Your task to perform on an android device: What is the capital of Spain? Image 0: 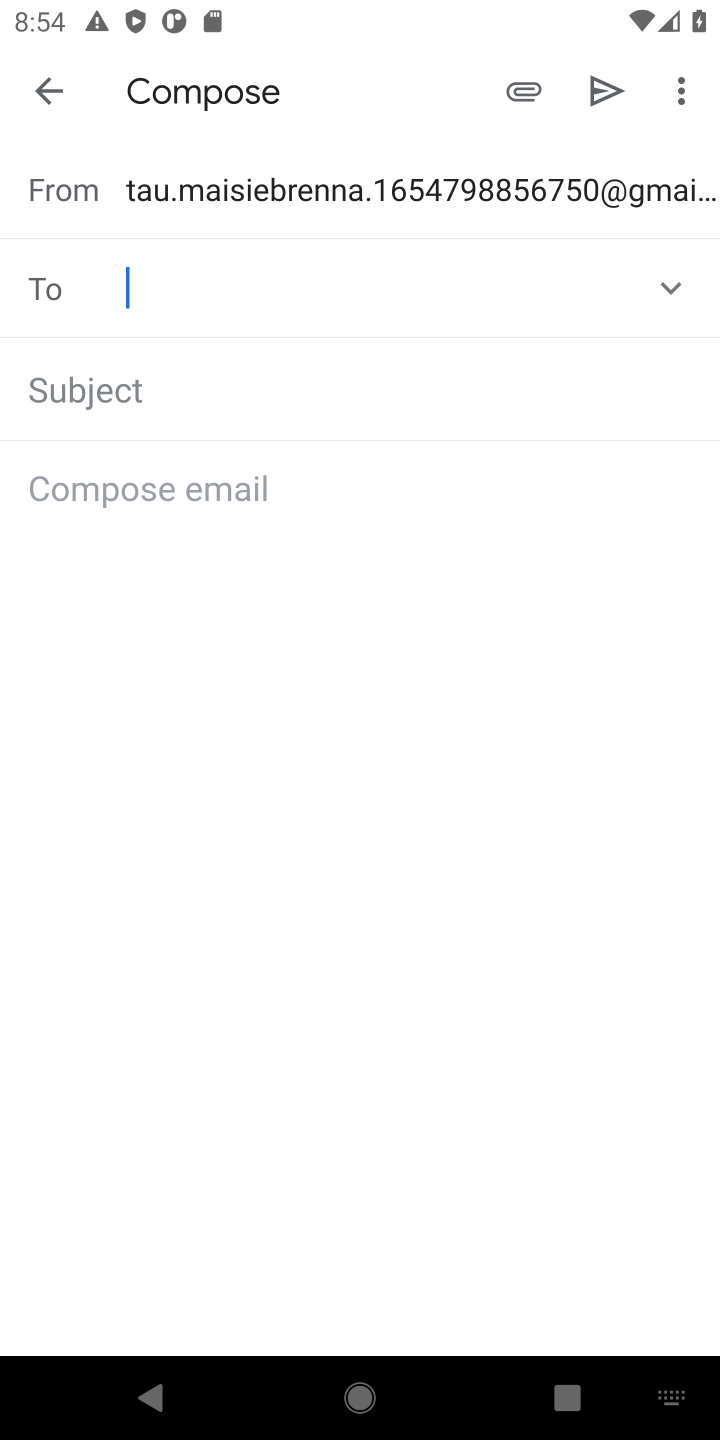
Step 0: press home button
Your task to perform on an android device: What is the capital of Spain? Image 1: 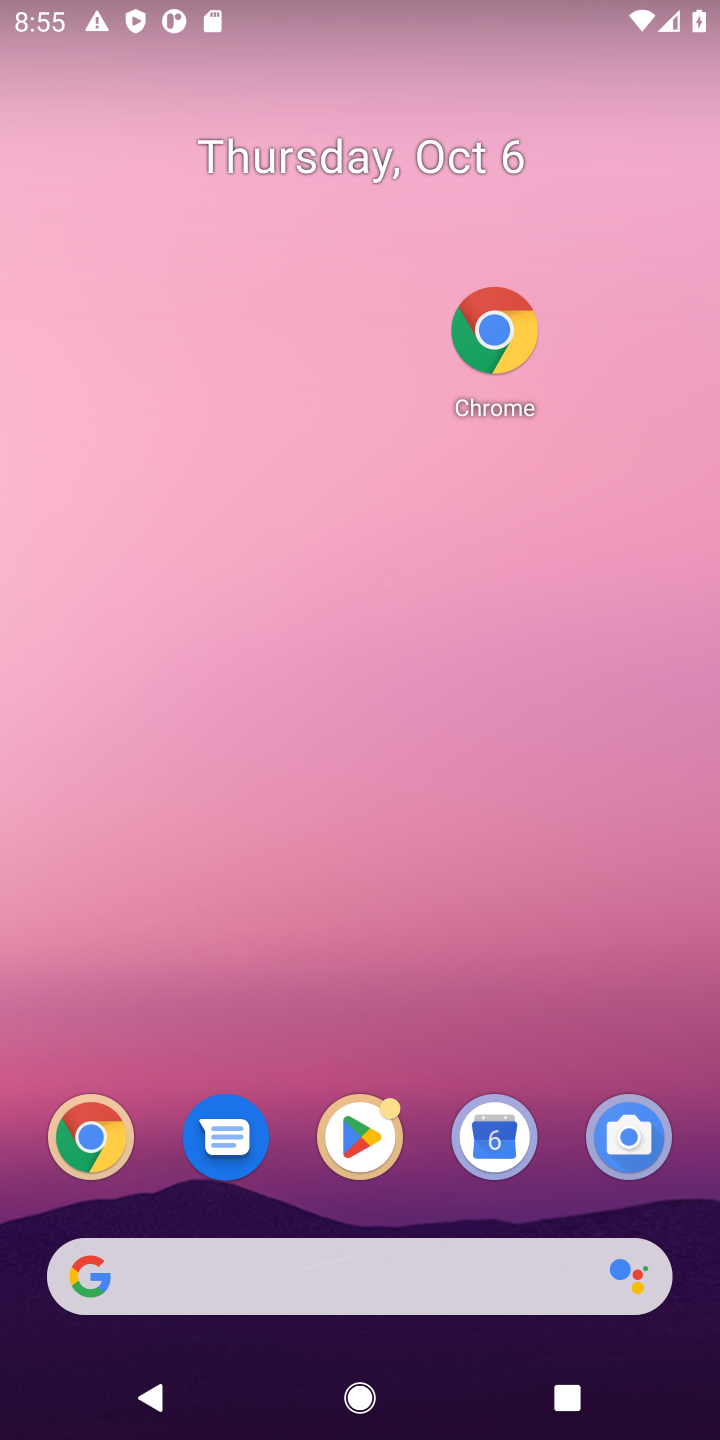
Step 1: click (90, 1138)
Your task to perform on an android device: What is the capital of Spain? Image 2: 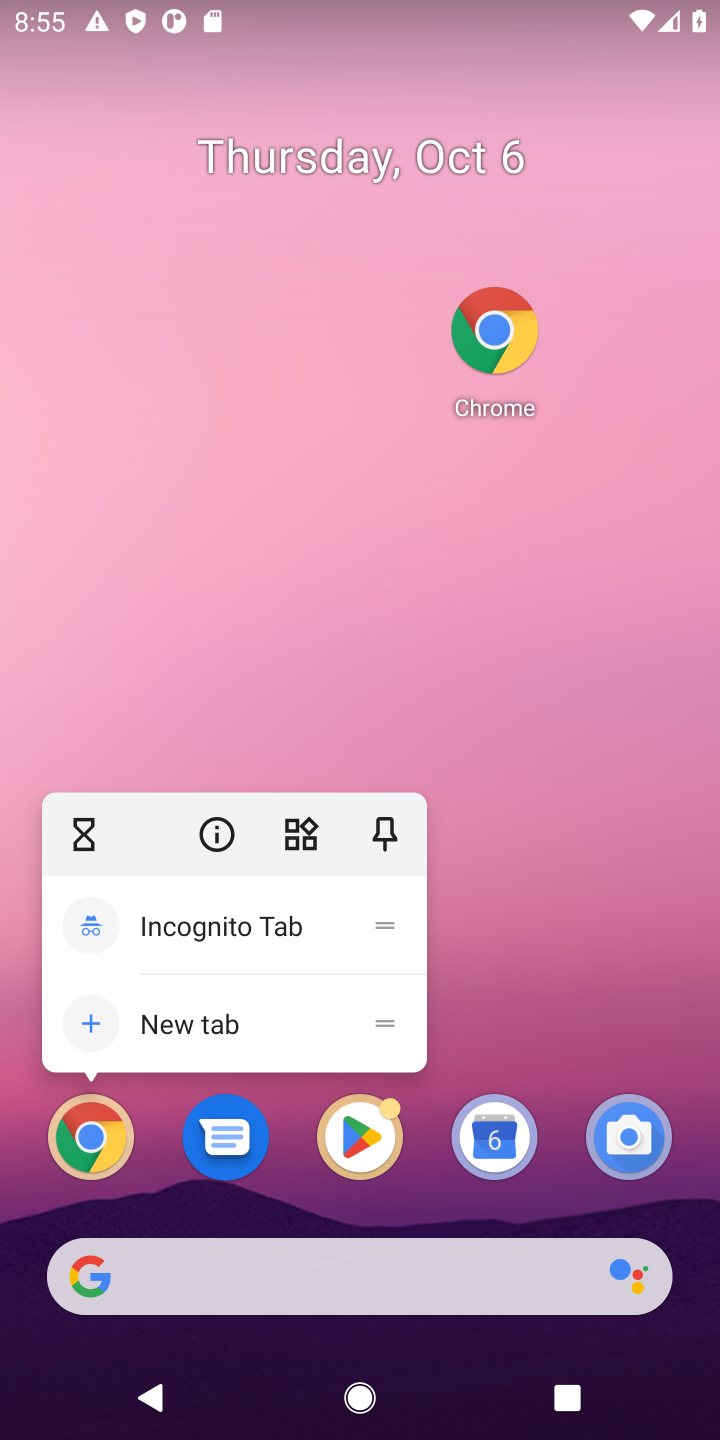
Step 2: click (89, 1138)
Your task to perform on an android device: What is the capital of Spain? Image 3: 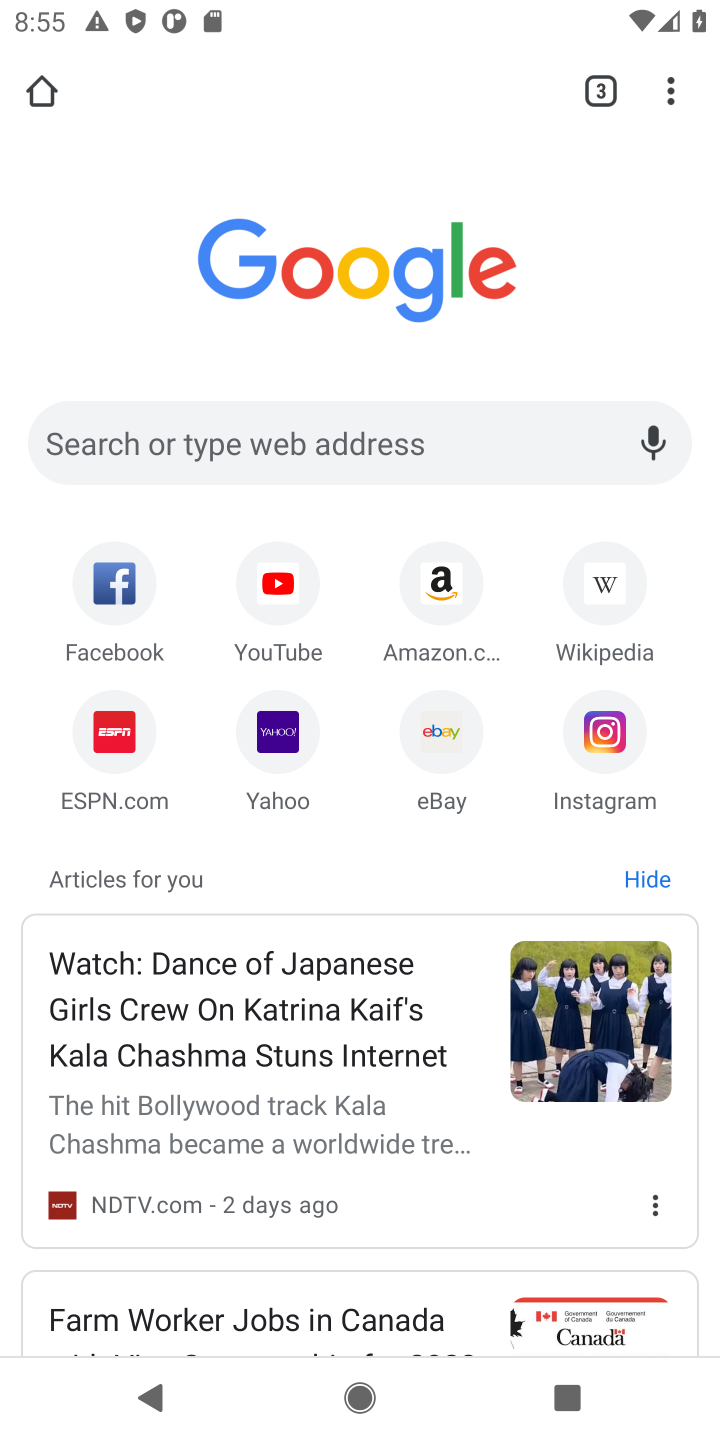
Step 3: click (258, 449)
Your task to perform on an android device: What is the capital of Spain? Image 4: 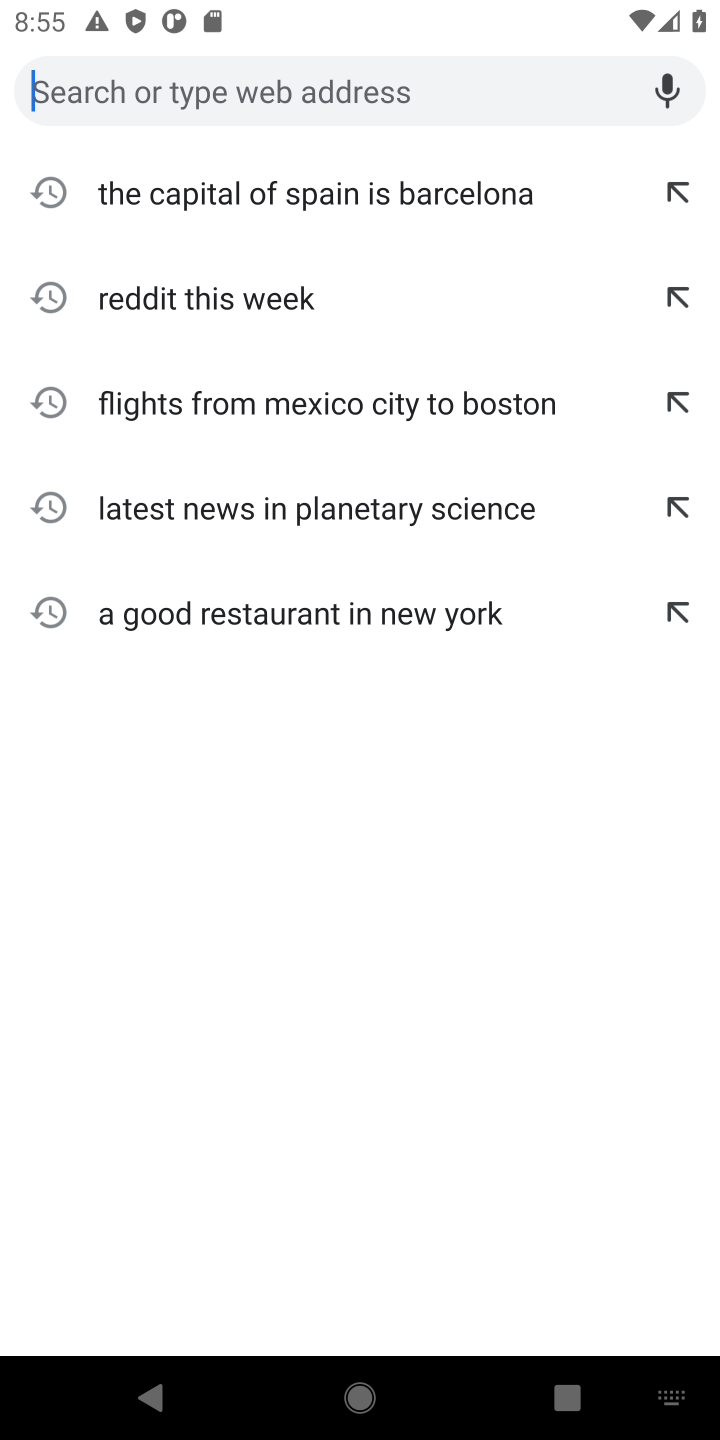
Step 4: type "capital spain"
Your task to perform on an android device: What is the capital of Spain? Image 5: 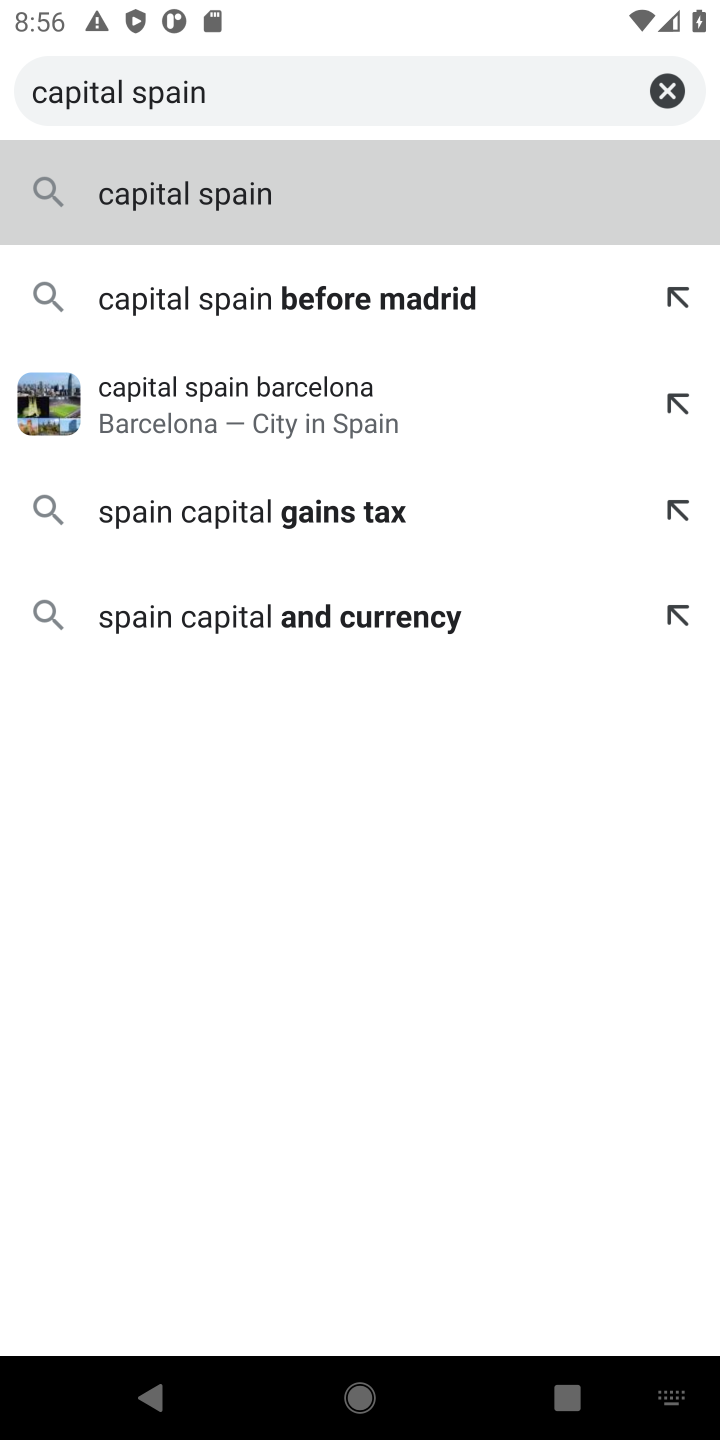
Step 5: click (132, 96)
Your task to perform on an android device: What is the capital of Spain? Image 6: 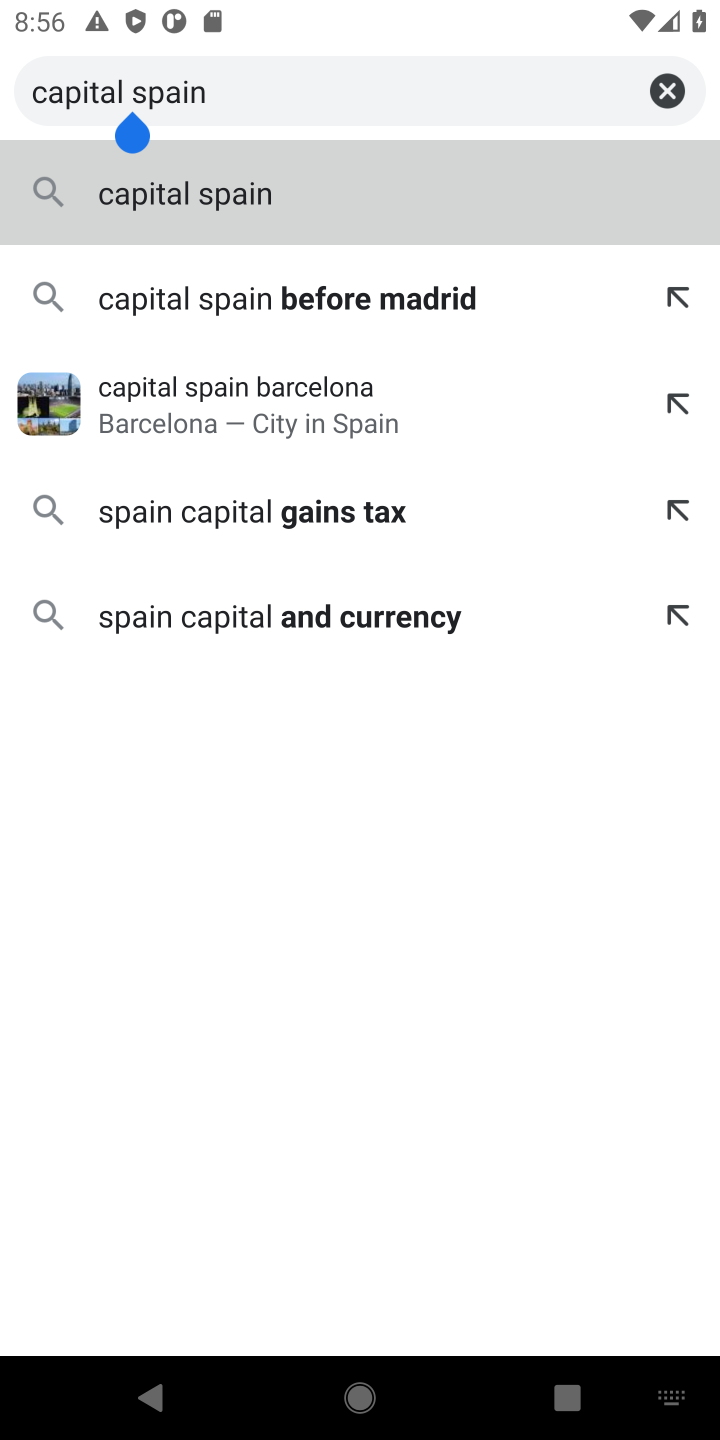
Step 6: type "of "
Your task to perform on an android device: What is the capital of Spain? Image 7: 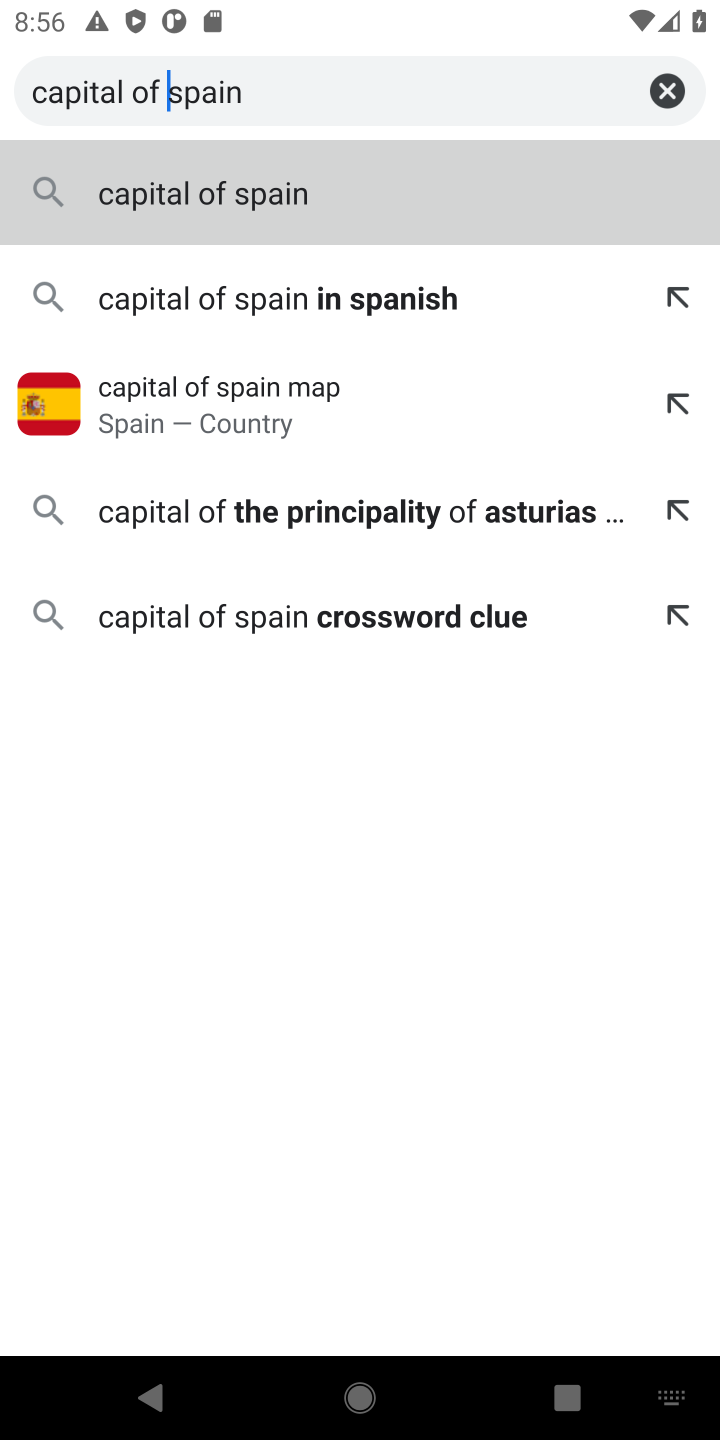
Step 7: click (307, 216)
Your task to perform on an android device: What is the capital of Spain? Image 8: 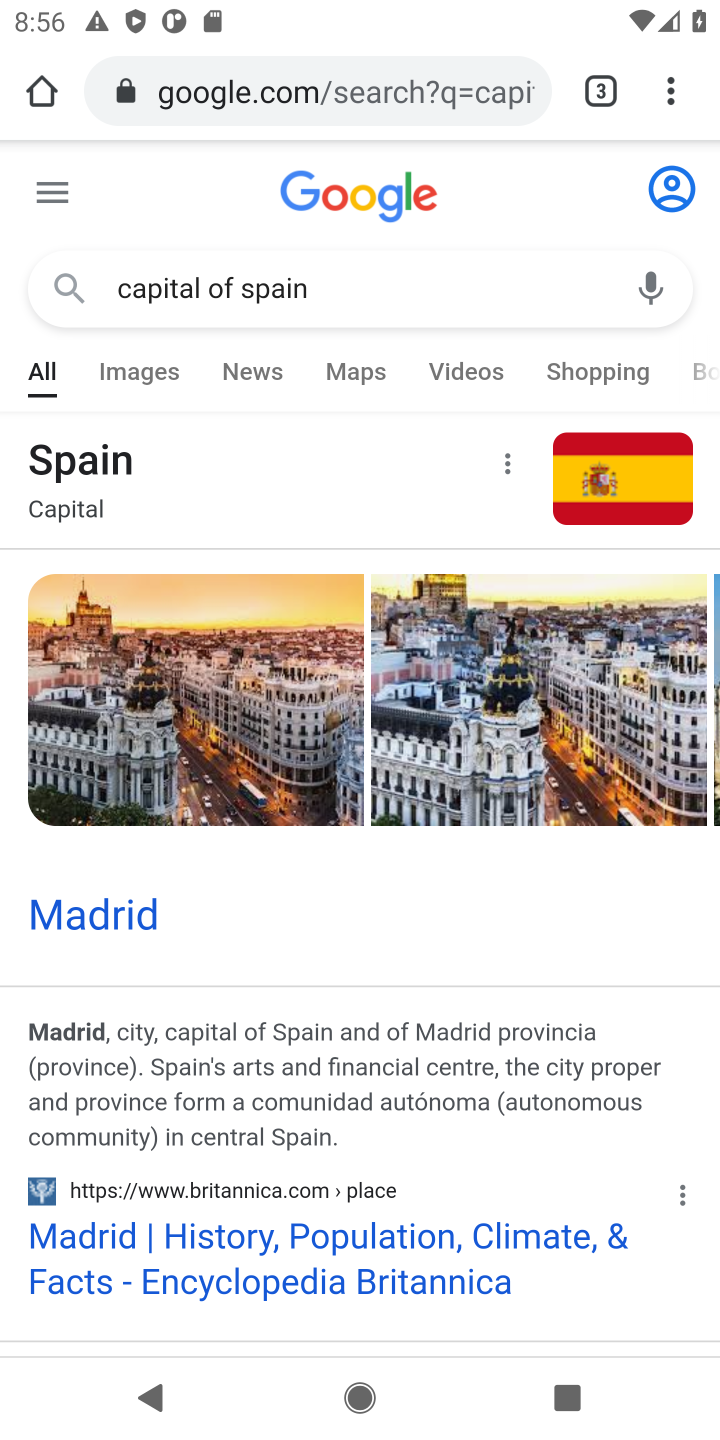
Step 8: click (88, 934)
Your task to perform on an android device: What is the capital of Spain? Image 9: 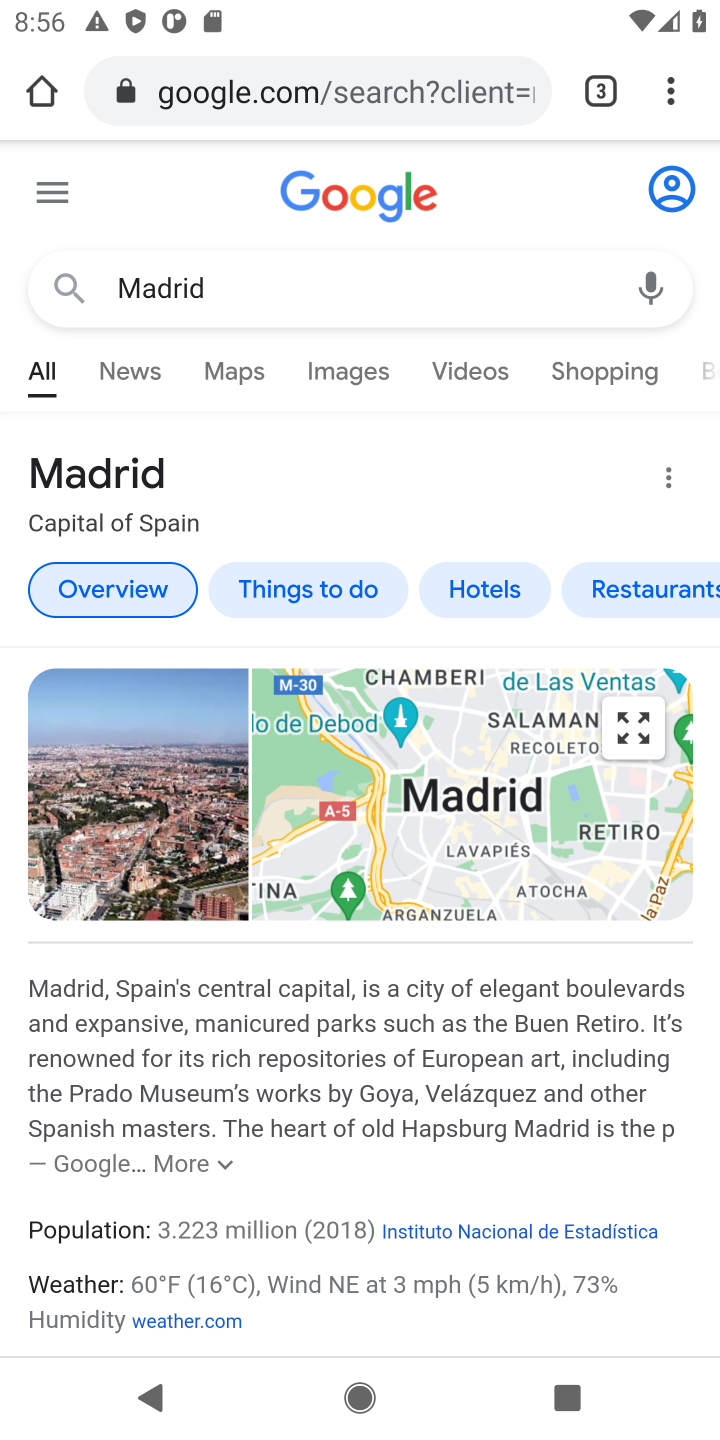
Step 9: task complete